Your task to perform on an android device: Check the weather Image 0: 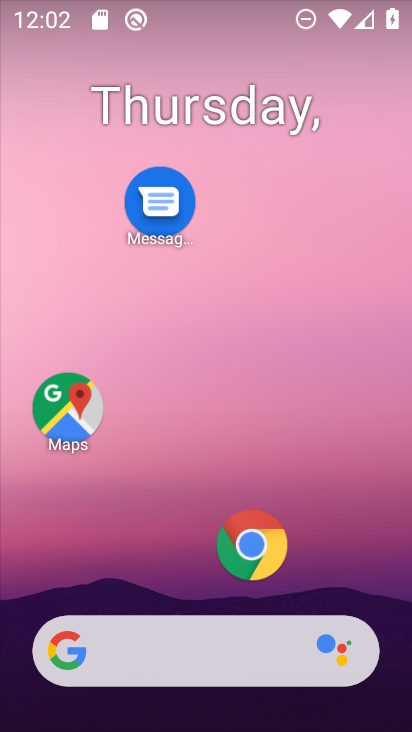
Step 0: drag from (188, 584) to (210, 203)
Your task to perform on an android device: Check the weather Image 1: 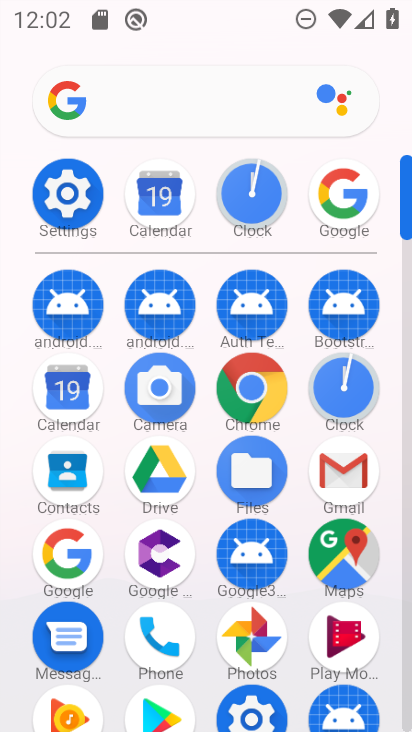
Step 1: click (85, 549)
Your task to perform on an android device: Check the weather Image 2: 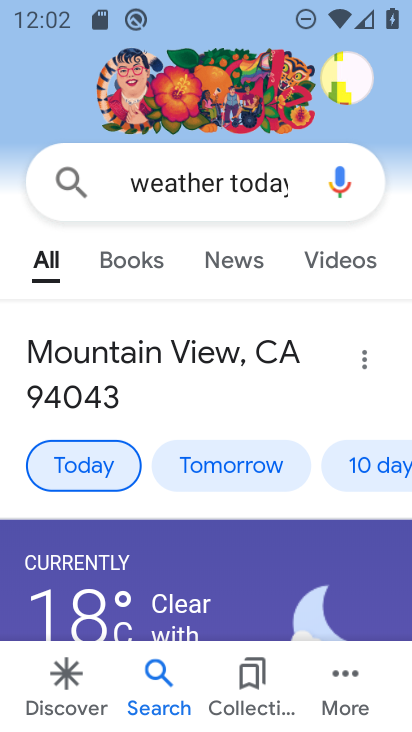
Step 2: task complete